Your task to perform on an android device: toggle translation in the chrome app Image 0: 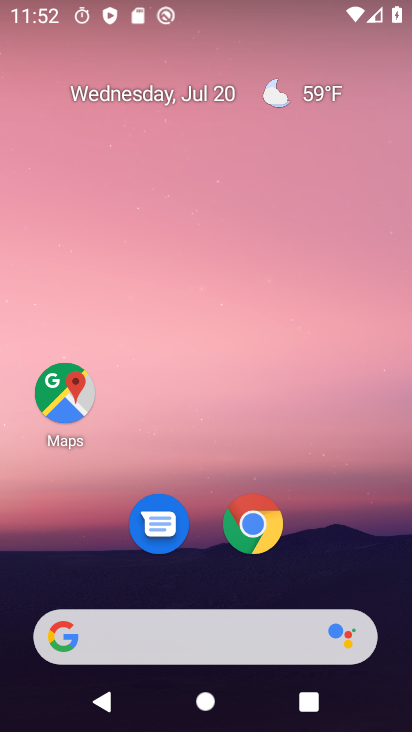
Step 0: press home button
Your task to perform on an android device: toggle translation in the chrome app Image 1: 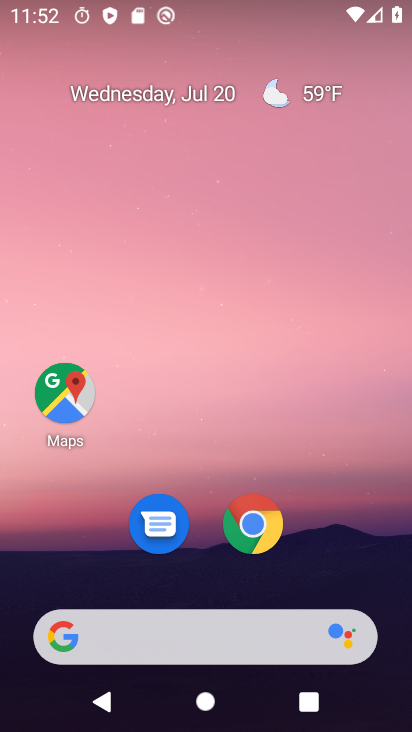
Step 1: click (251, 525)
Your task to perform on an android device: toggle translation in the chrome app Image 2: 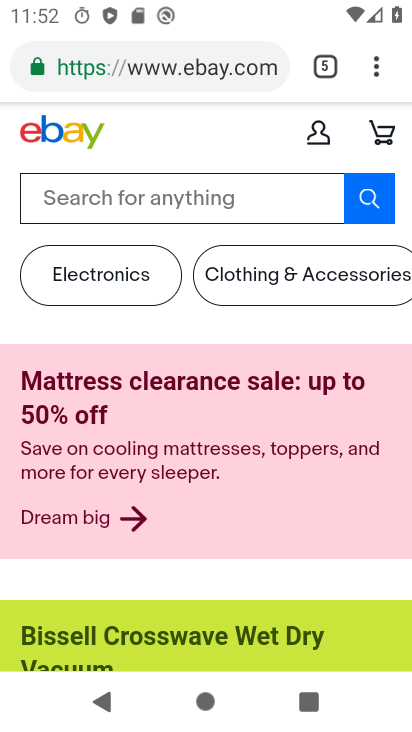
Step 2: drag from (378, 67) to (201, 531)
Your task to perform on an android device: toggle translation in the chrome app Image 3: 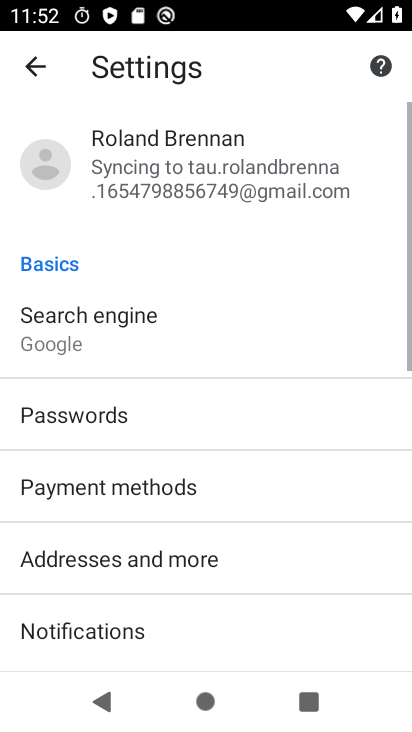
Step 3: drag from (273, 375) to (303, 296)
Your task to perform on an android device: toggle translation in the chrome app Image 4: 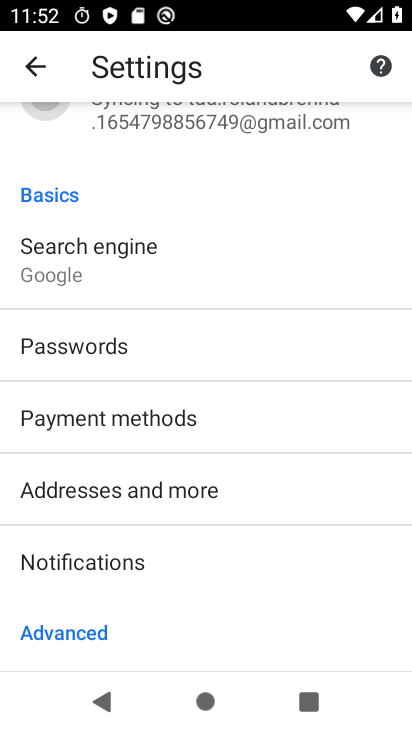
Step 4: drag from (229, 615) to (325, 111)
Your task to perform on an android device: toggle translation in the chrome app Image 5: 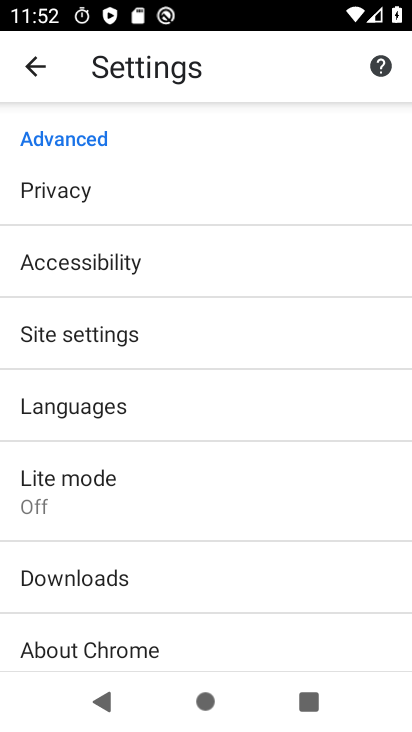
Step 5: click (84, 405)
Your task to perform on an android device: toggle translation in the chrome app Image 6: 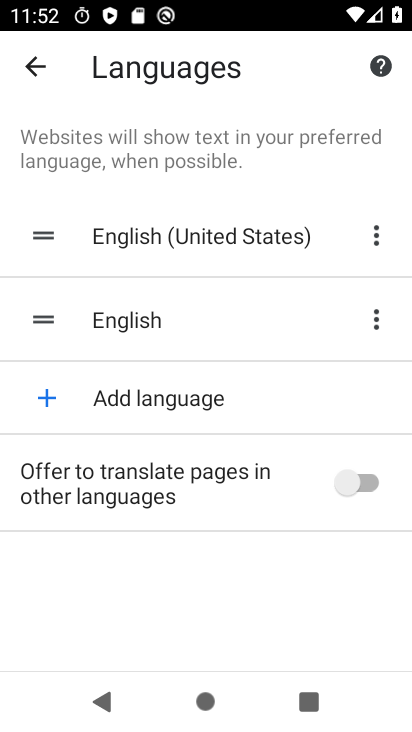
Step 6: click (364, 479)
Your task to perform on an android device: toggle translation in the chrome app Image 7: 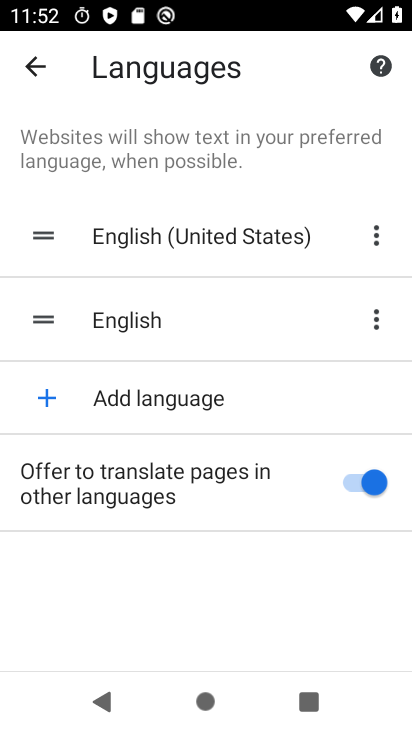
Step 7: task complete